Your task to perform on an android device: What is the recent news? Image 0: 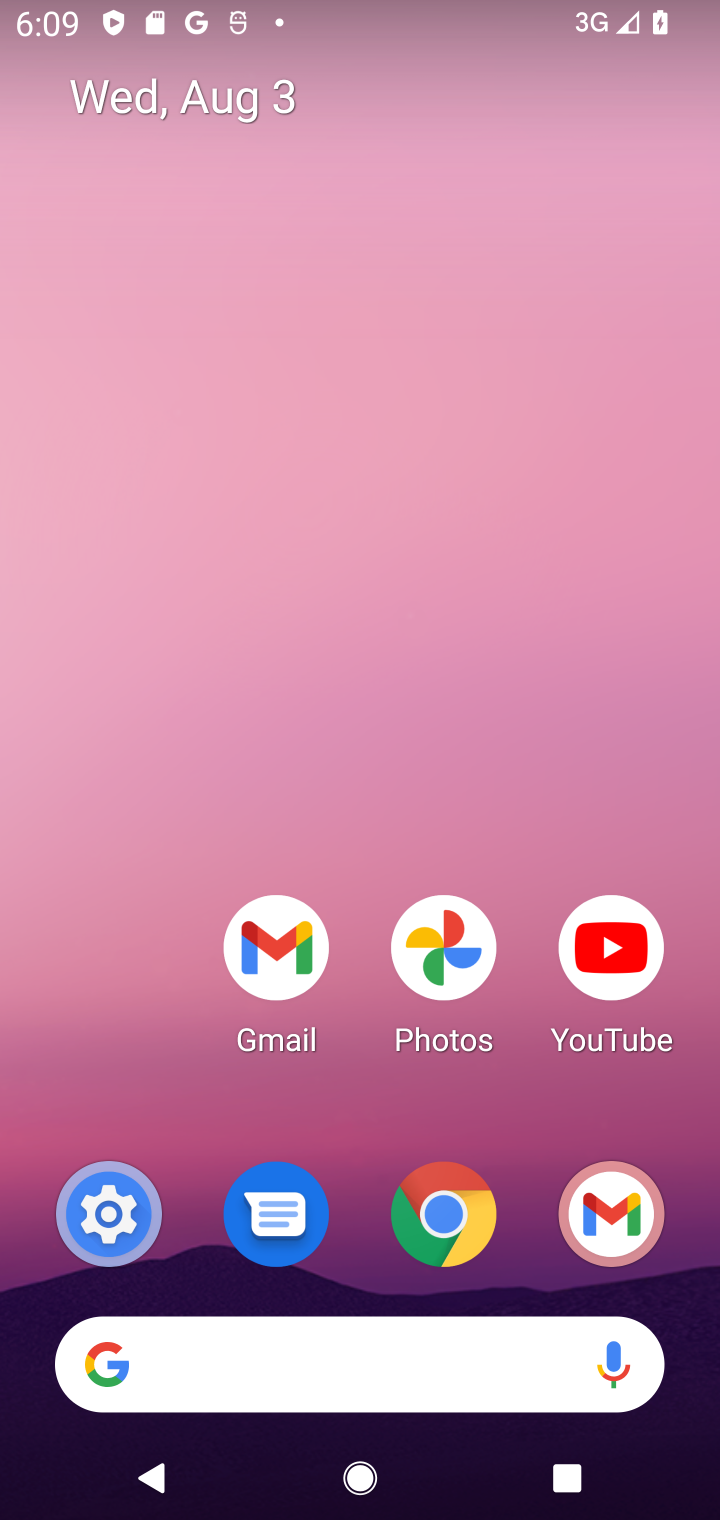
Step 0: click (494, 1371)
Your task to perform on an android device: What is the recent news? Image 1: 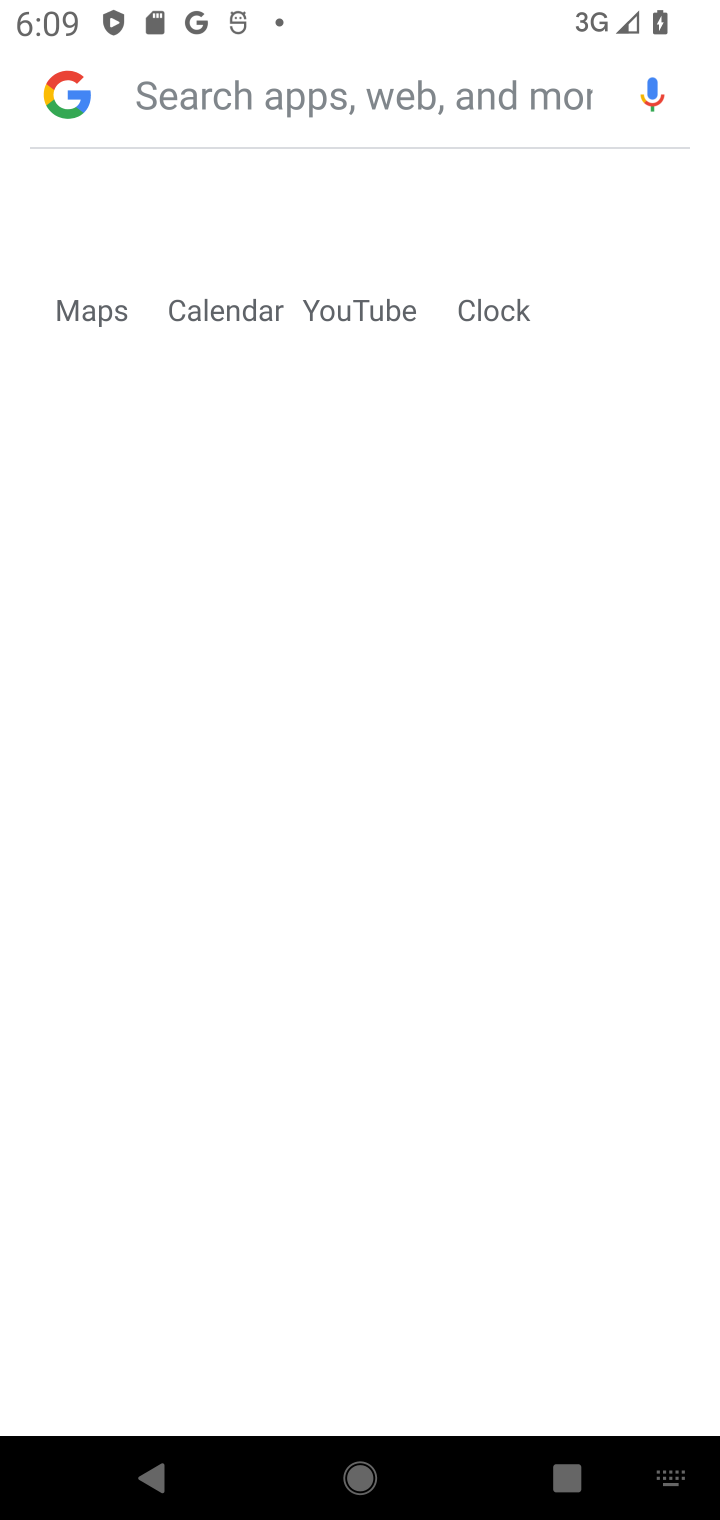
Step 1: type "what is the recent news"
Your task to perform on an android device: What is the recent news? Image 2: 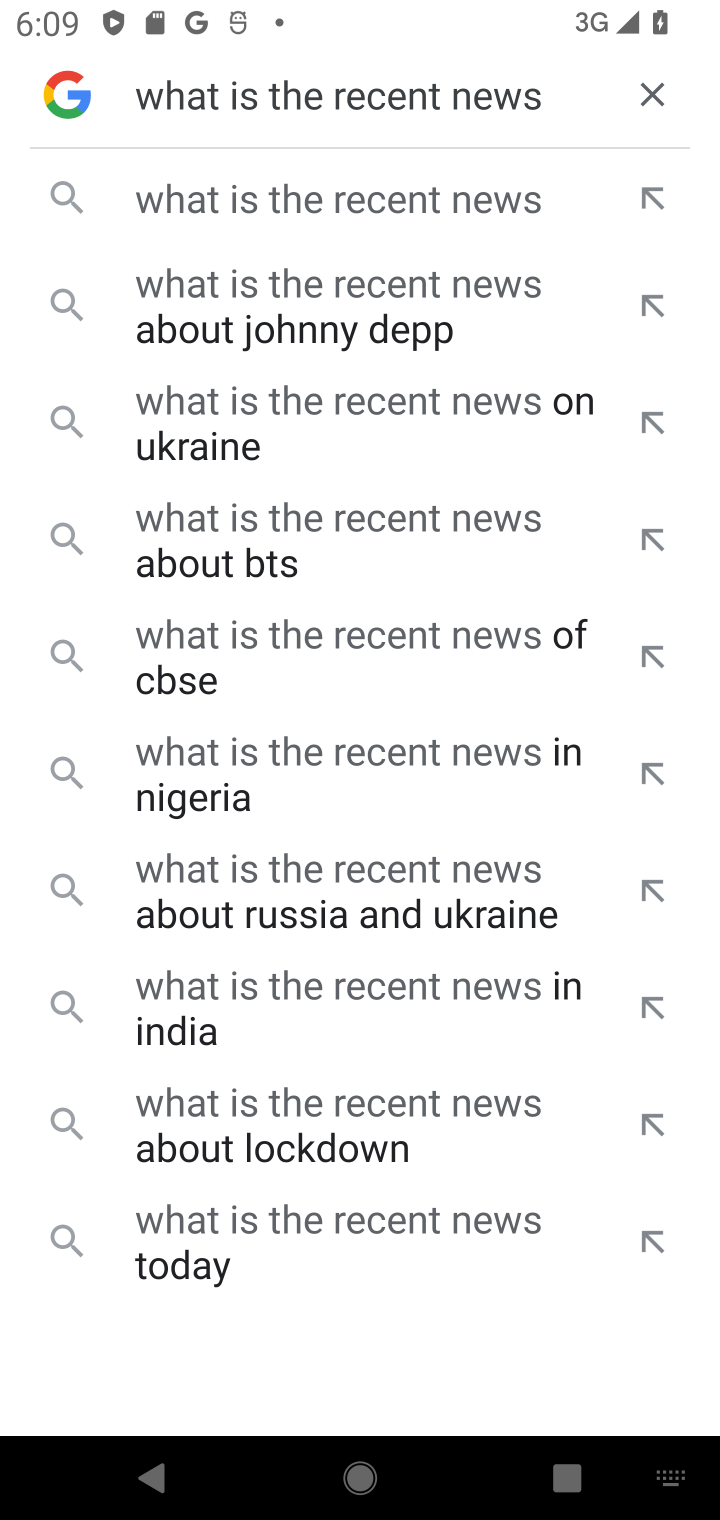
Step 2: click (448, 224)
Your task to perform on an android device: What is the recent news? Image 3: 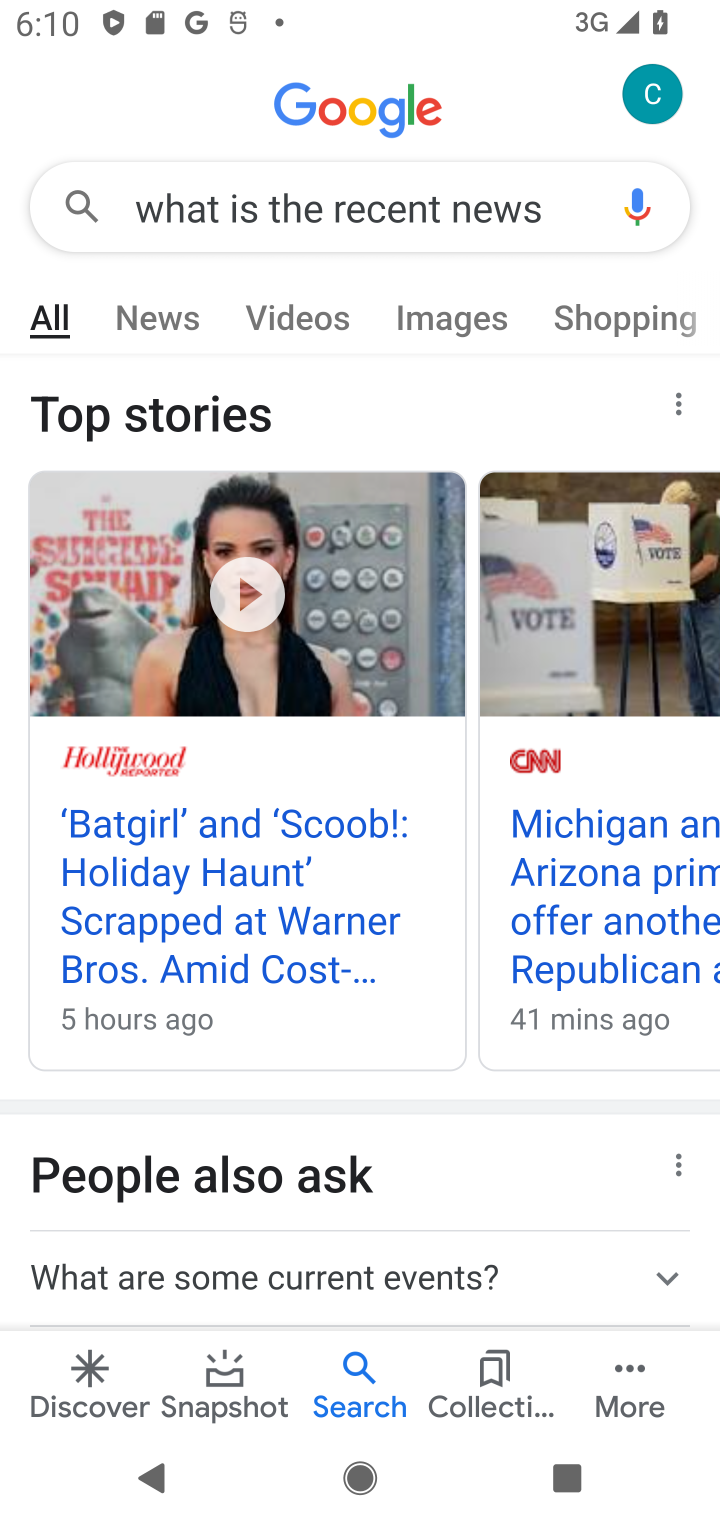
Step 3: click (176, 319)
Your task to perform on an android device: What is the recent news? Image 4: 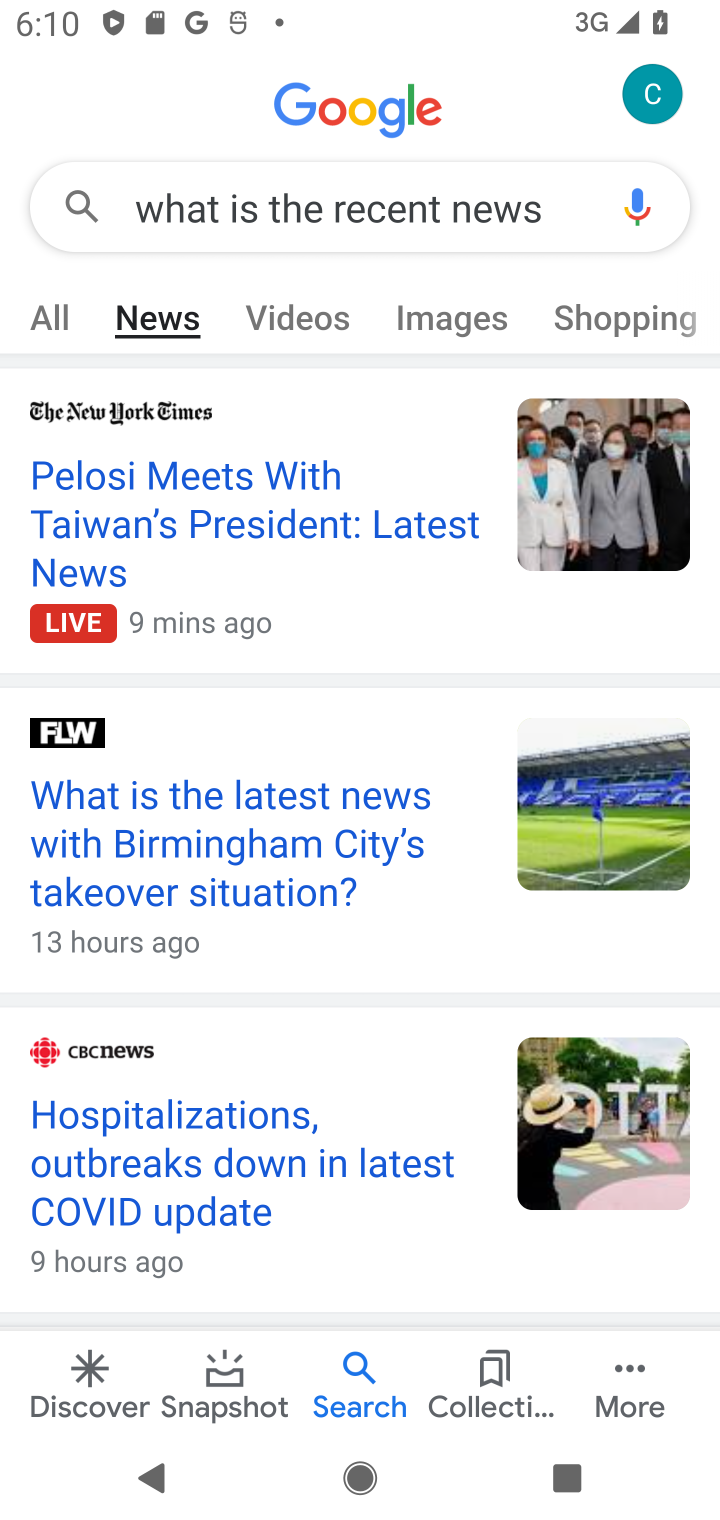
Step 4: task complete